Your task to perform on an android device: read, delete, or share a saved page in the chrome app Image 0: 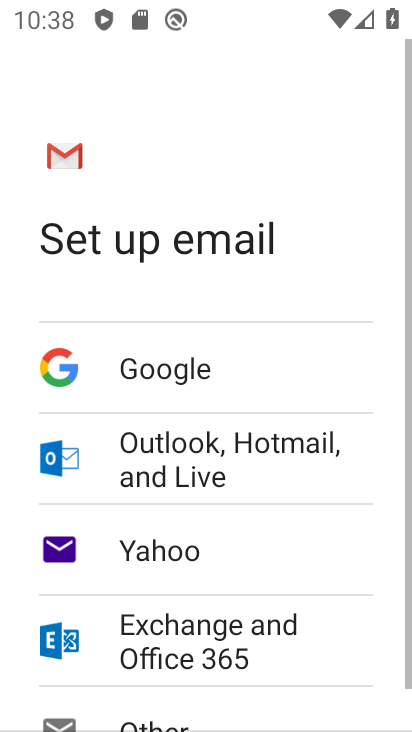
Step 0: press home button
Your task to perform on an android device: read, delete, or share a saved page in the chrome app Image 1: 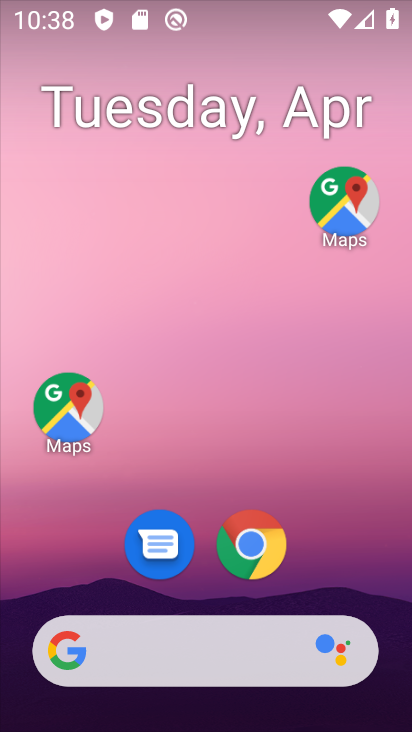
Step 1: click (266, 543)
Your task to perform on an android device: read, delete, or share a saved page in the chrome app Image 2: 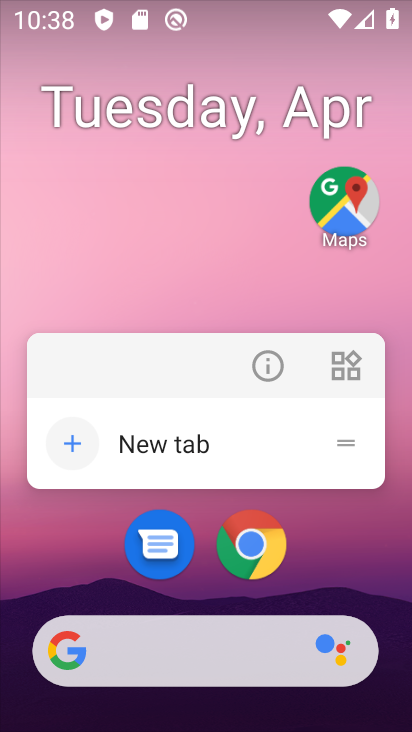
Step 2: click (244, 539)
Your task to perform on an android device: read, delete, or share a saved page in the chrome app Image 3: 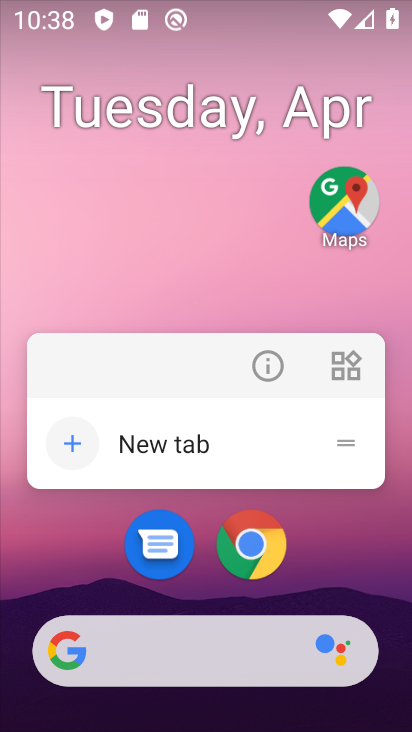
Step 3: click (244, 539)
Your task to perform on an android device: read, delete, or share a saved page in the chrome app Image 4: 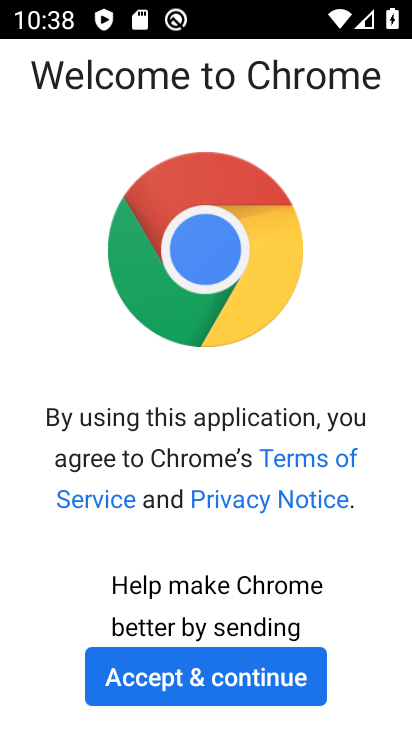
Step 4: click (225, 672)
Your task to perform on an android device: read, delete, or share a saved page in the chrome app Image 5: 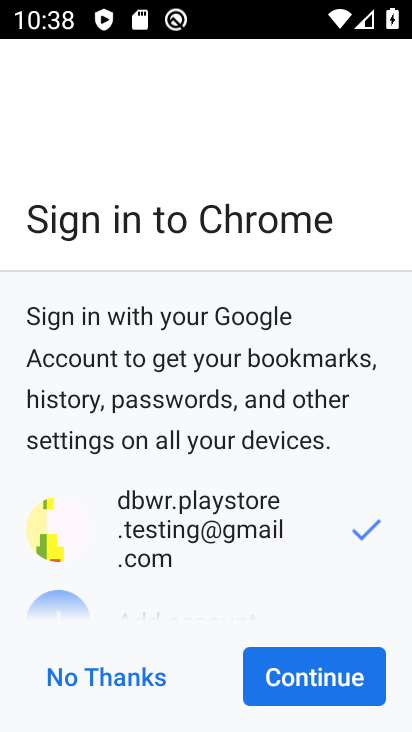
Step 5: click (326, 685)
Your task to perform on an android device: read, delete, or share a saved page in the chrome app Image 6: 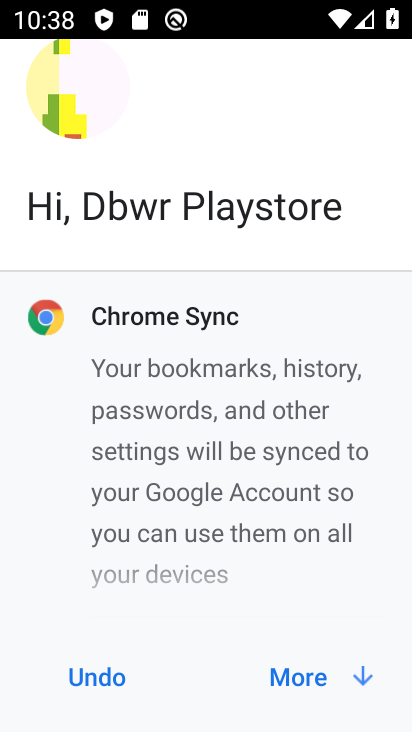
Step 6: click (322, 679)
Your task to perform on an android device: read, delete, or share a saved page in the chrome app Image 7: 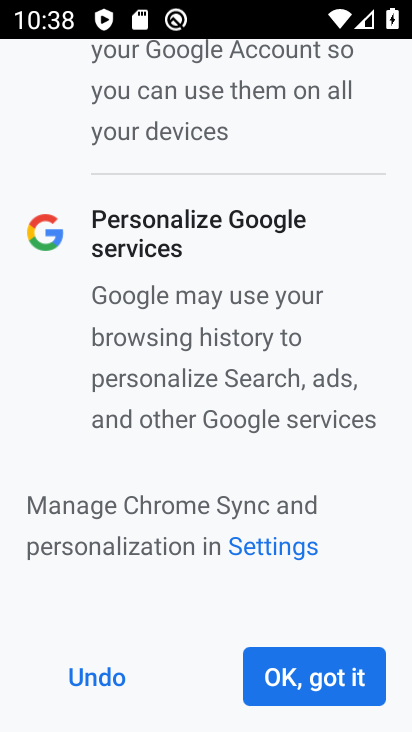
Step 7: click (322, 679)
Your task to perform on an android device: read, delete, or share a saved page in the chrome app Image 8: 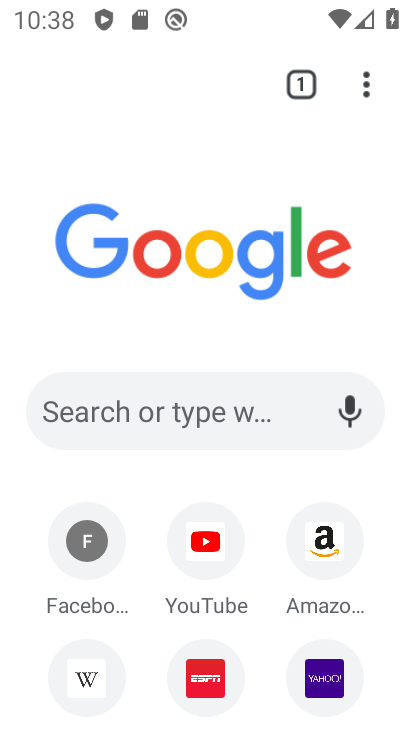
Step 8: click (364, 89)
Your task to perform on an android device: read, delete, or share a saved page in the chrome app Image 9: 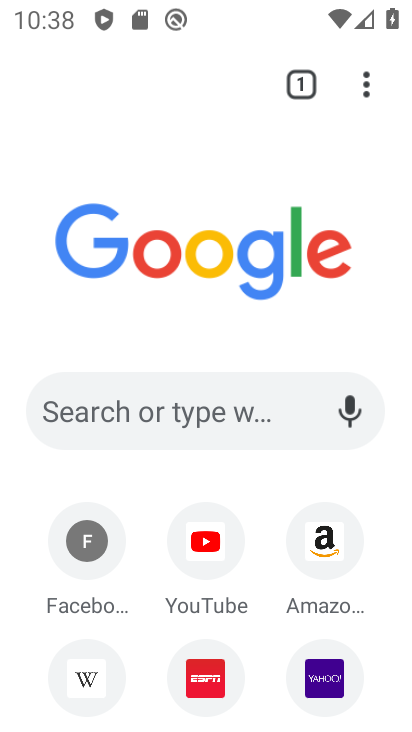
Step 9: click (370, 91)
Your task to perform on an android device: read, delete, or share a saved page in the chrome app Image 10: 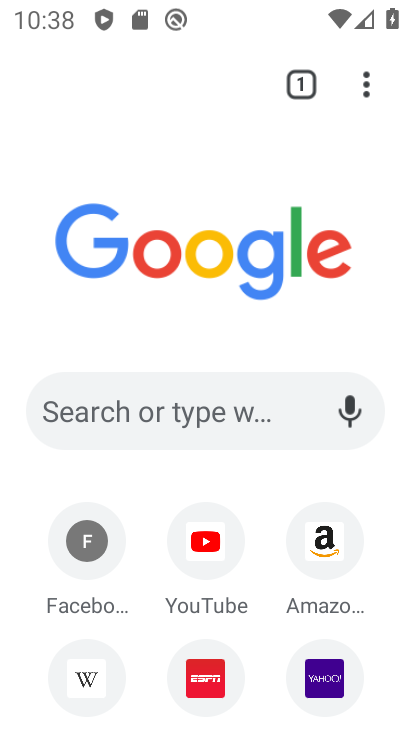
Step 10: click (369, 88)
Your task to perform on an android device: read, delete, or share a saved page in the chrome app Image 11: 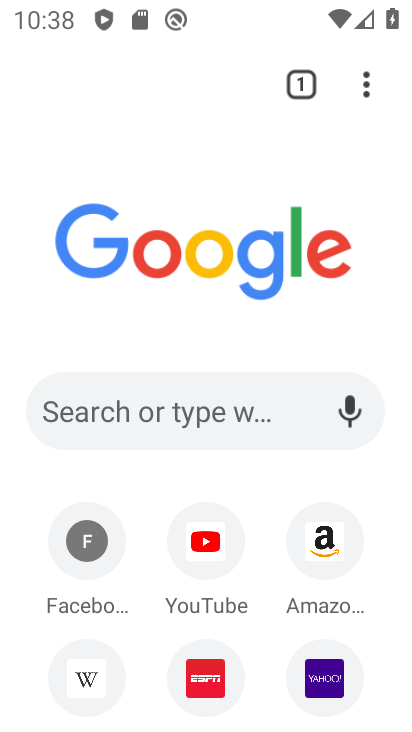
Step 11: task complete